Your task to perform on an android device: open a bookmark in the chrome app Image 0: 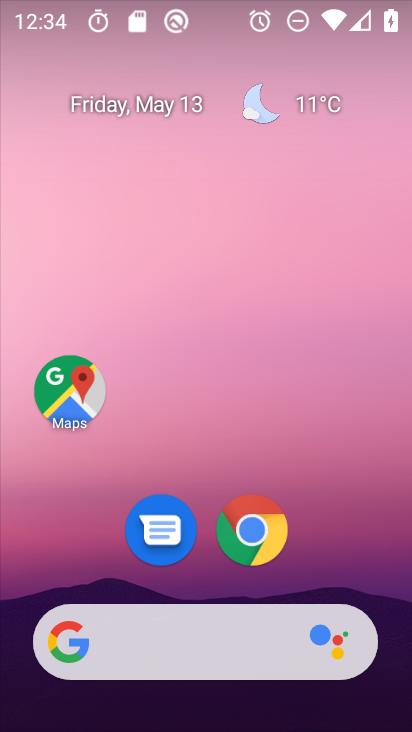
Step 0: press home button
Your task to perform on an android device: open a bookmark in the chrome app Image 1: 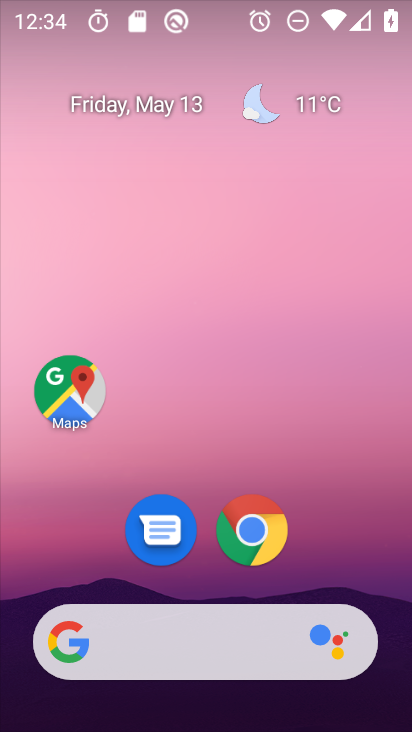
Step 1: drag from (124, 641) to (302, 143)
Your task to perform on an android device: open a bookmark in the chrome app Image 2: 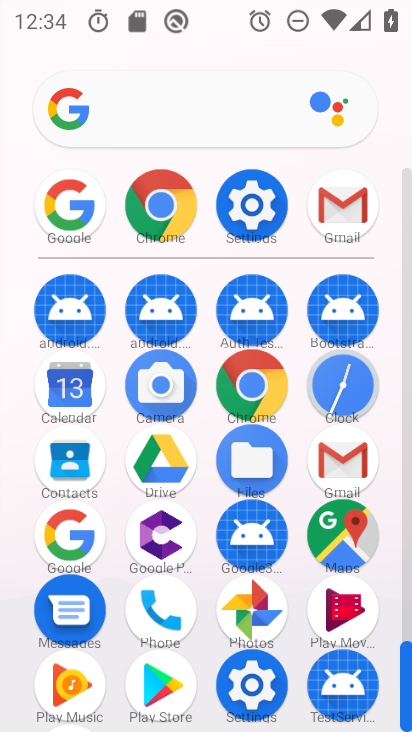
Step 2: click (166, 222)
Your task to perform on an android device: open a bookmark in the chrome app Image 3: 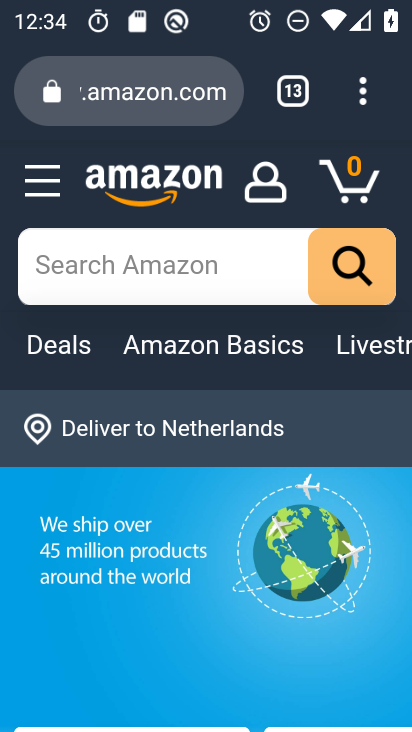
Step 3: task complete